Your task to perform on an android device: allow notifications from all sites in the chrome app Image 0: 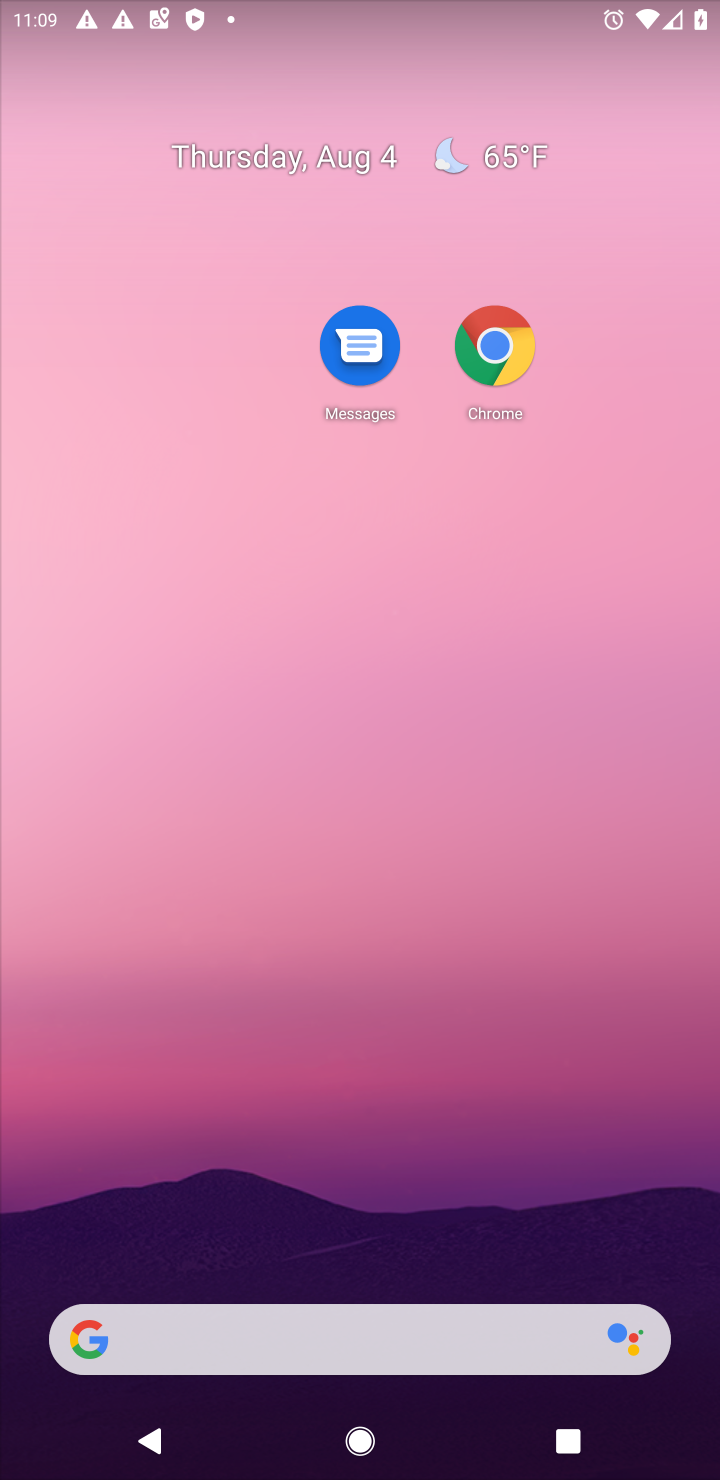
Step 0: drag from (342, 1209) to (253, 0)
Your task to perform on an android device: allow notifications from all sites in the chrome app Image 1: 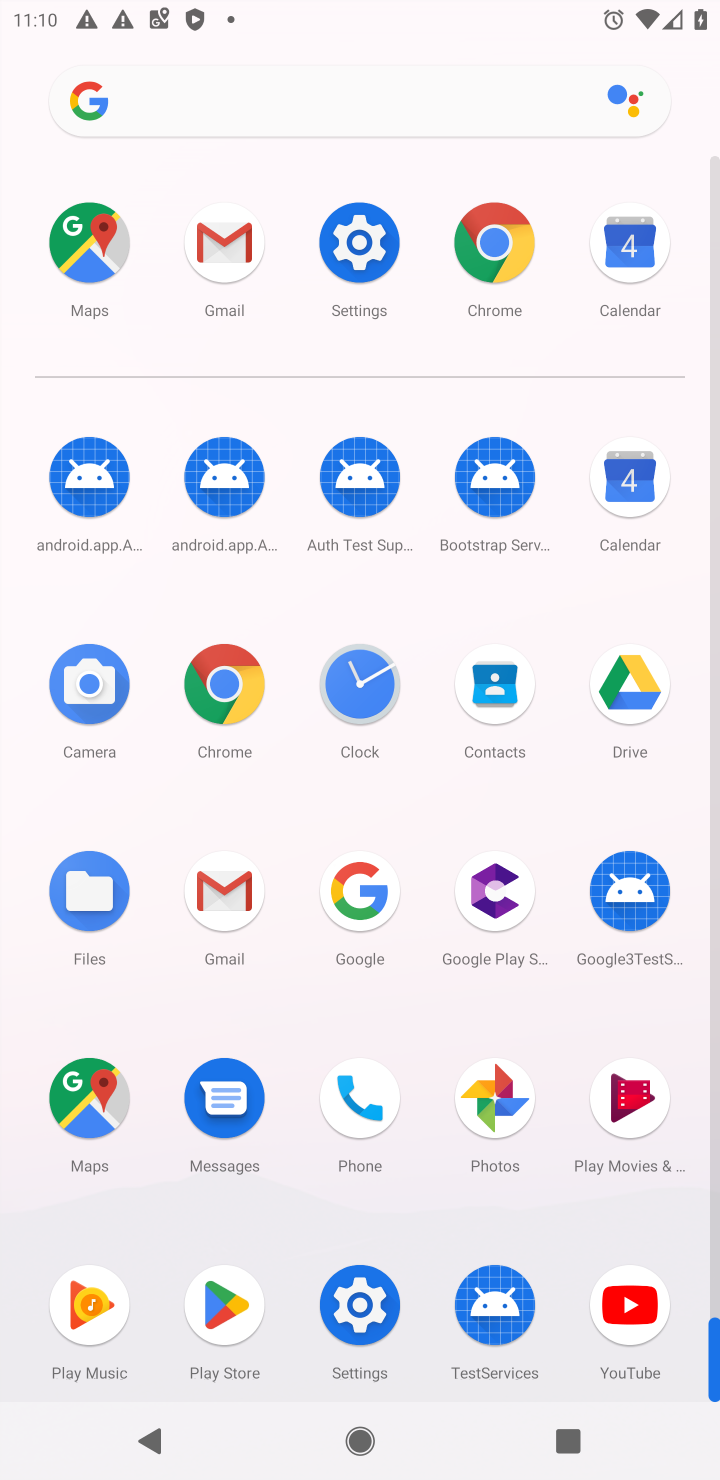
Step 1: click (491, 255)
Your task to perform on an android device: allow notifications from all sites in the chrome app Image 2: 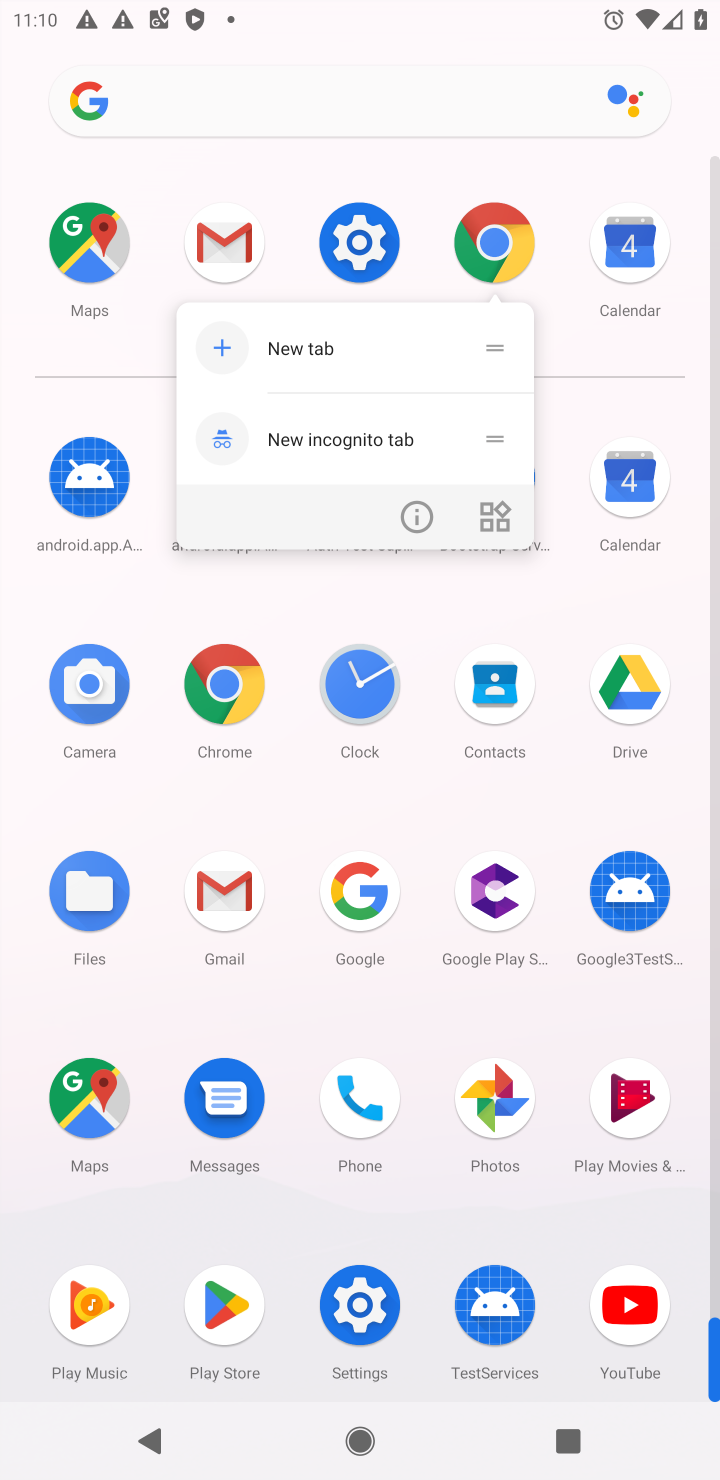
Step 2: click (489, 255)
Your task to perform on an android device: allow notifications from all sites in the chrome app Image 3: 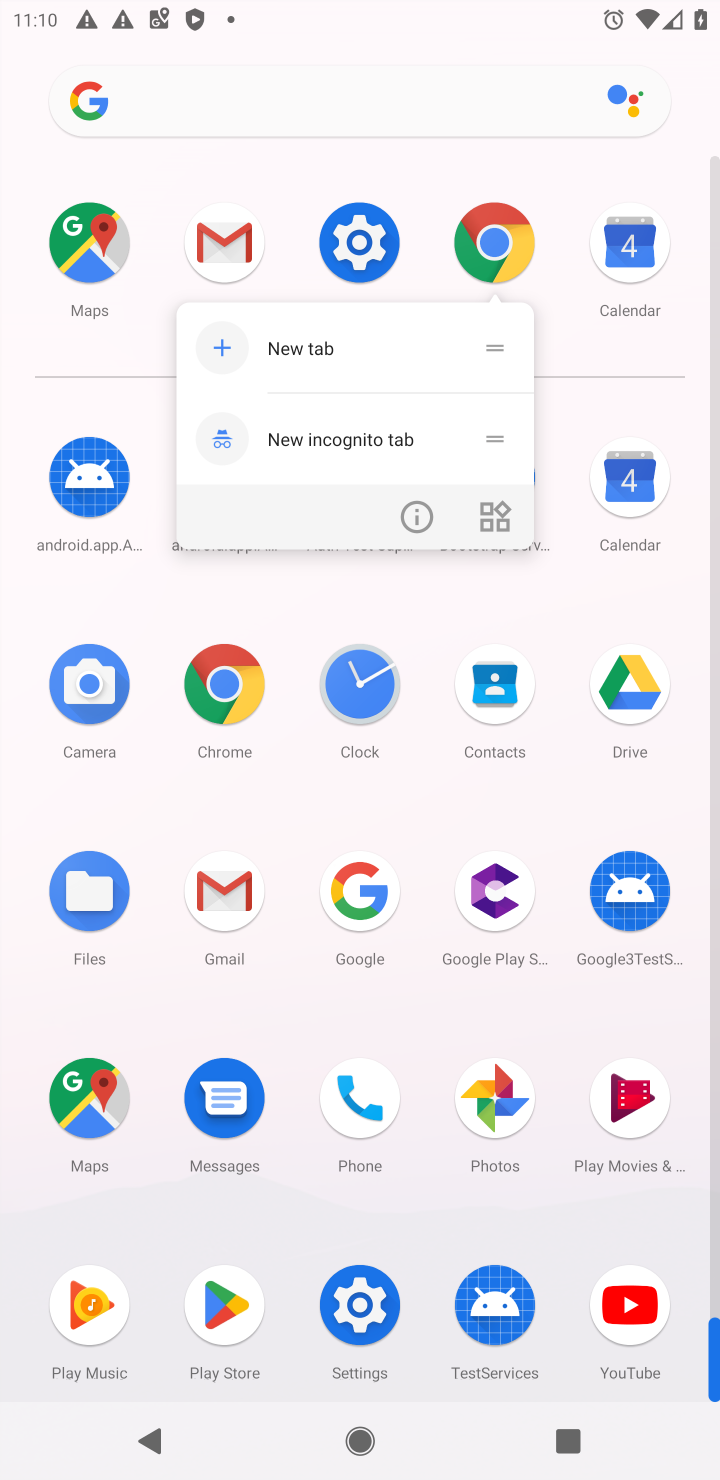
Step 3: click (489, 255)
Your task to perform on an android device: allow notifications from all sites in the chrome app Image 4: 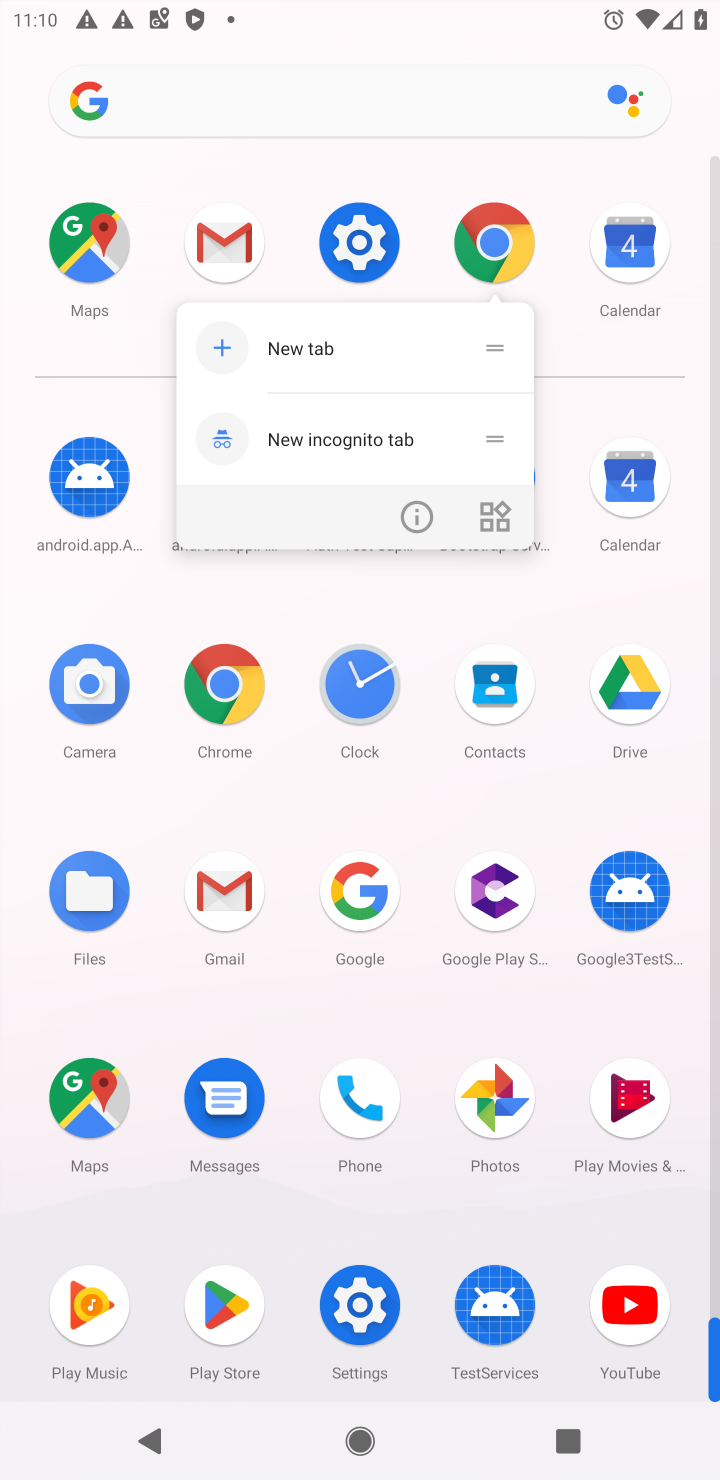
Step 4: click (491, 255)
Your task to perform on an android device: allow notifications from all sites in the chrome app Image 5: 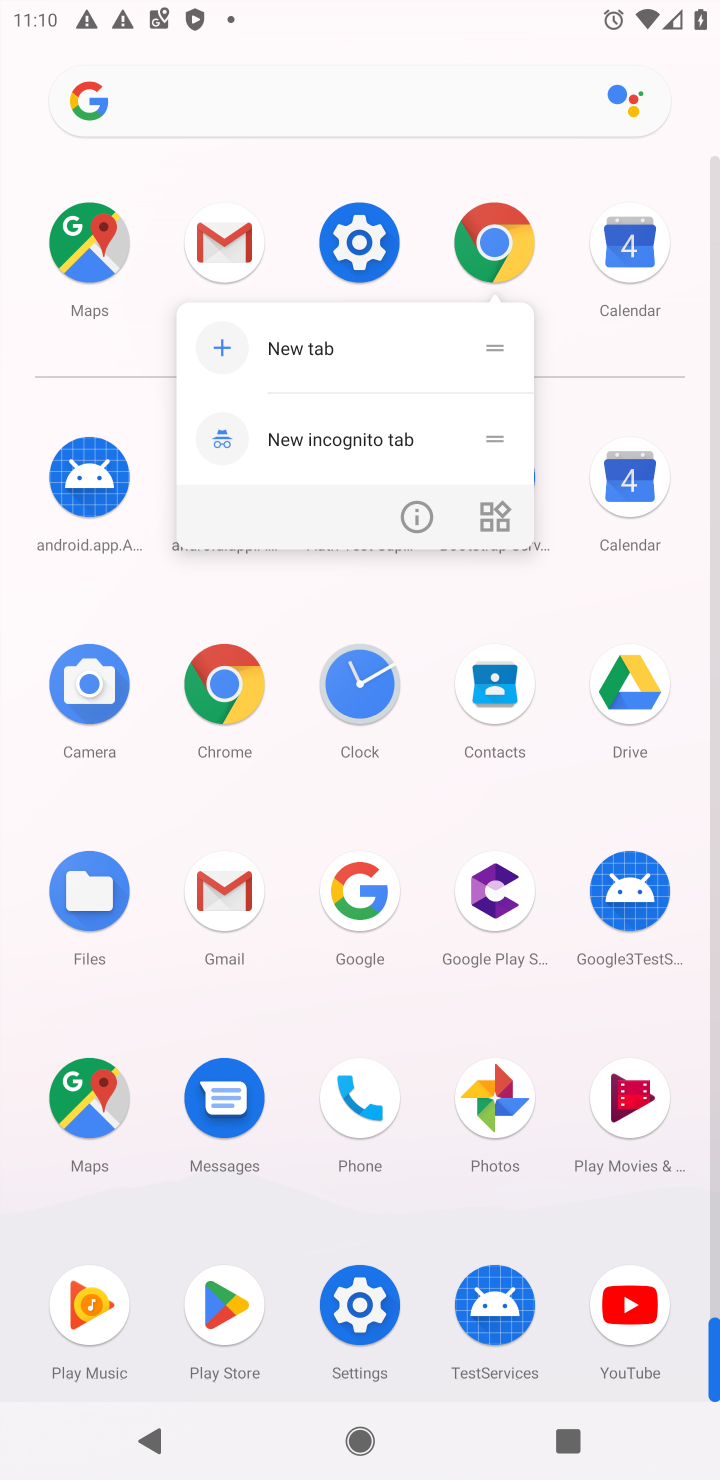
Step 5: click (491, 254)
Your task to perform on an android device: allow notifications from all sites in the chrome app Image 6: 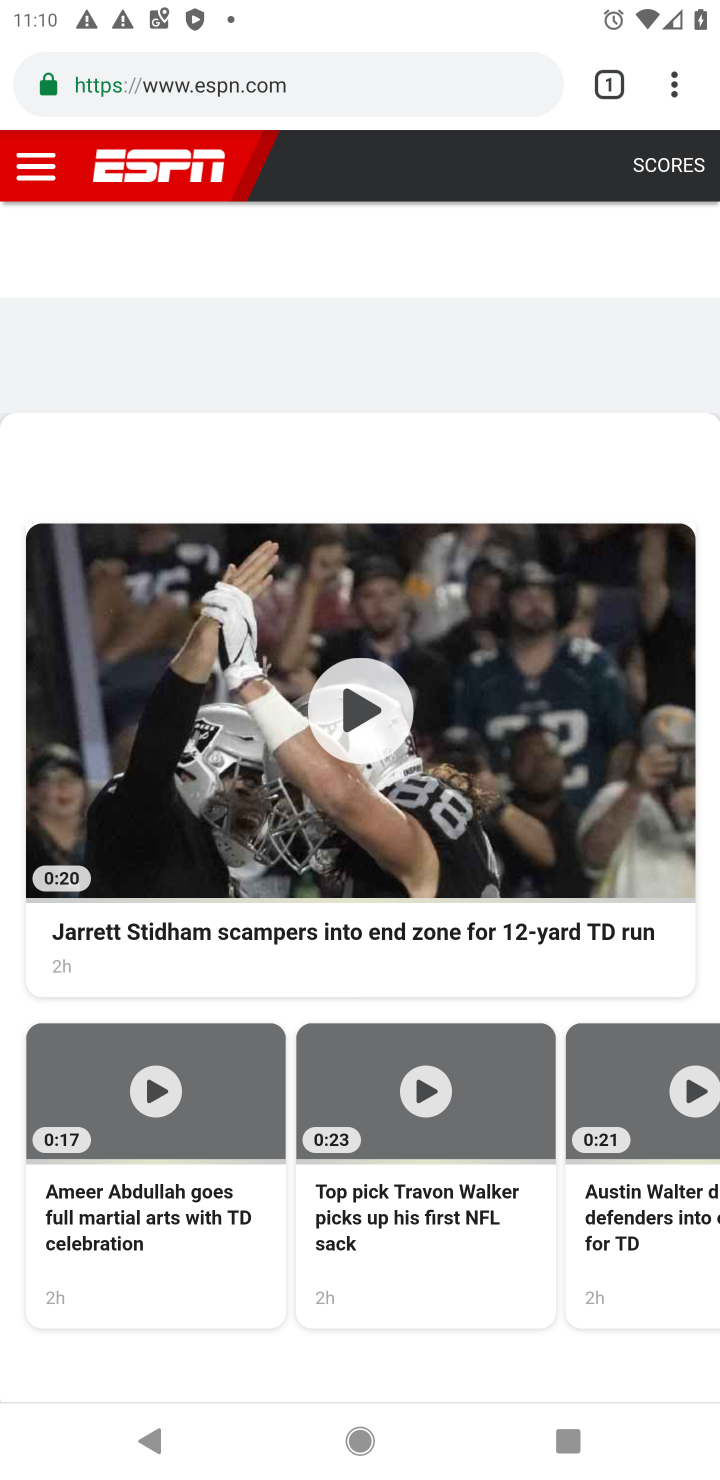
Step 6: drag from (694, 93) to (429, 977)
Your task to perform on an android device: allow notifications from all sites in the chrome app Image 7: 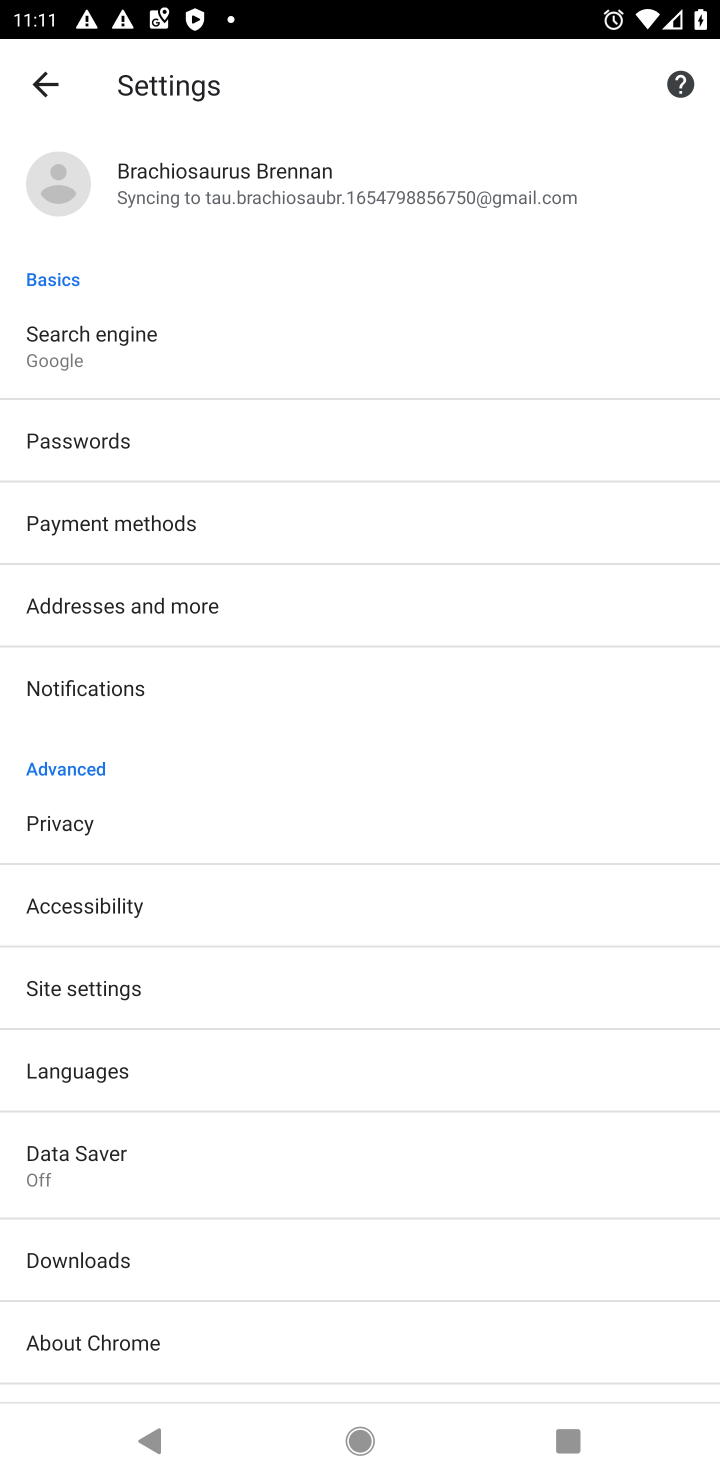
Step 7: click (163, 991)
Your task to perform on an android device: allow notifications from all sites in the chrome app Image 8: 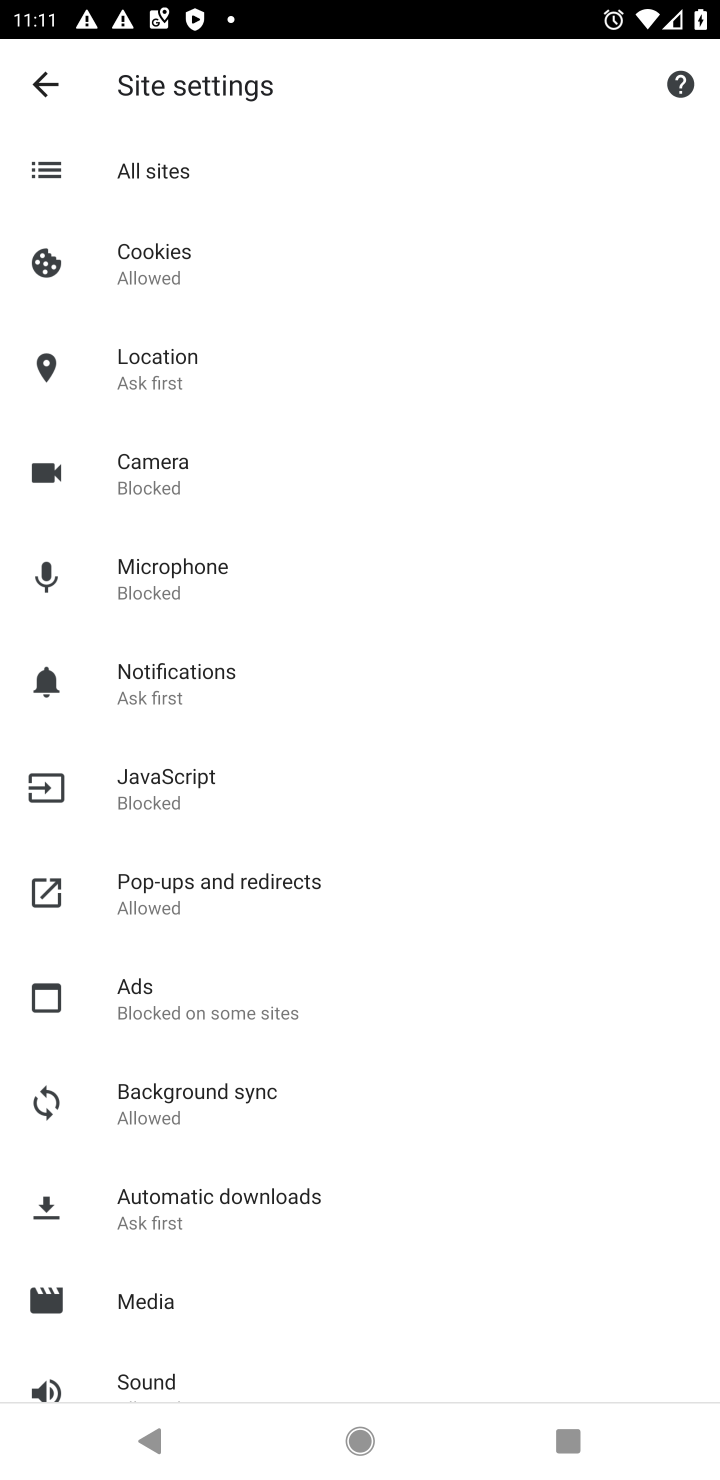
Step 8: click (152, 679)
Your task to perform on an android device: allow notifications from all sites in the chrome app Image 9: 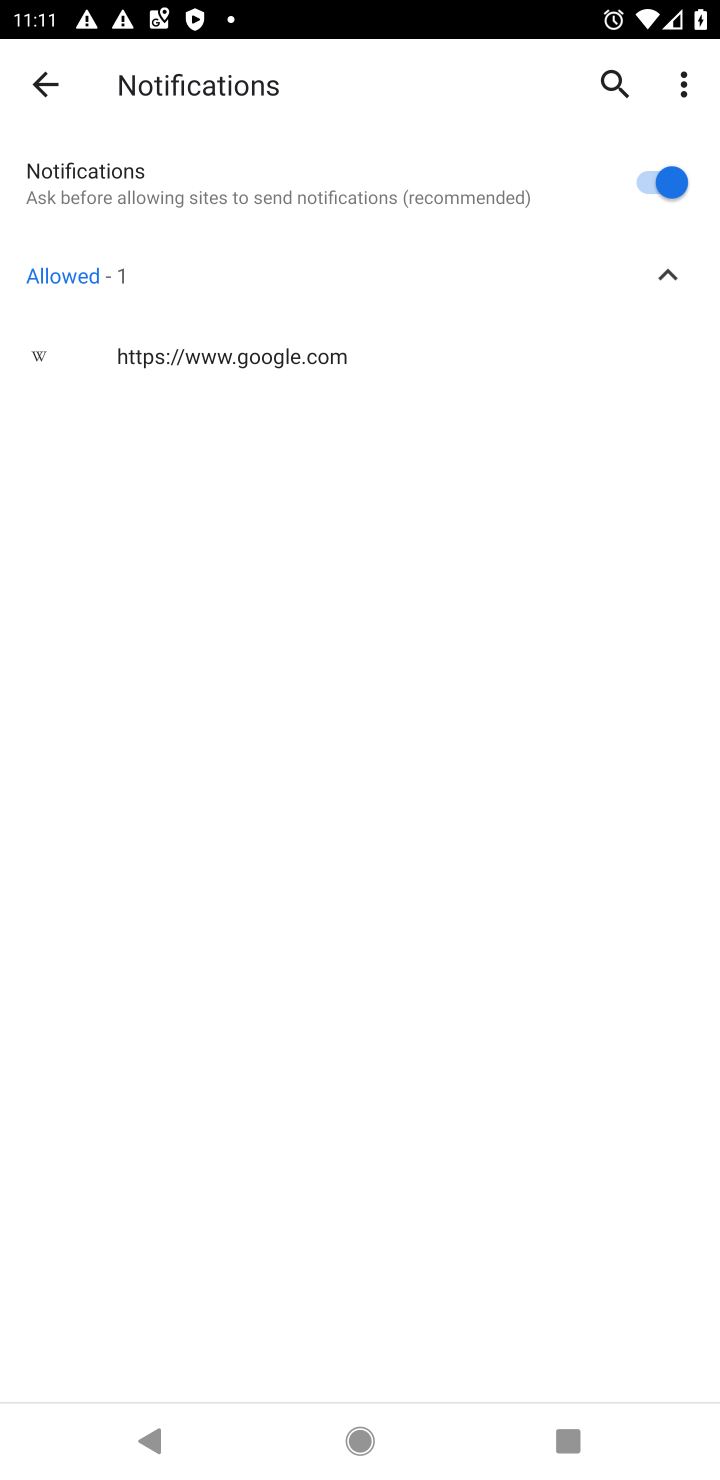
Step 9: task complete